Your task to perform on an android device: Open the stopwatch Image 0: 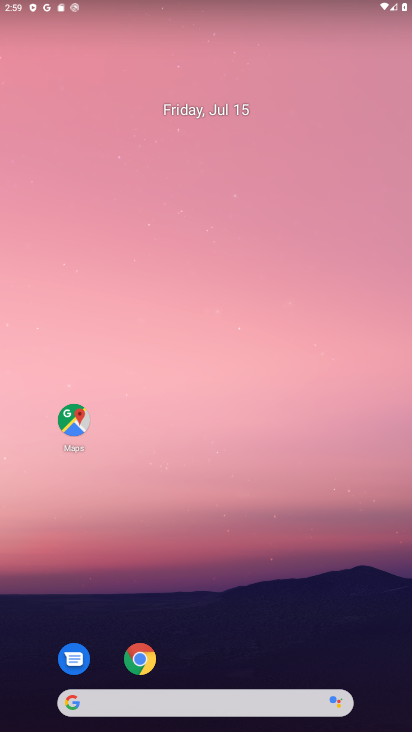
Step 0: drag from (211, 589) to (148, 132)
Your task to perform on an android device: Open the stopwatch Image 1: 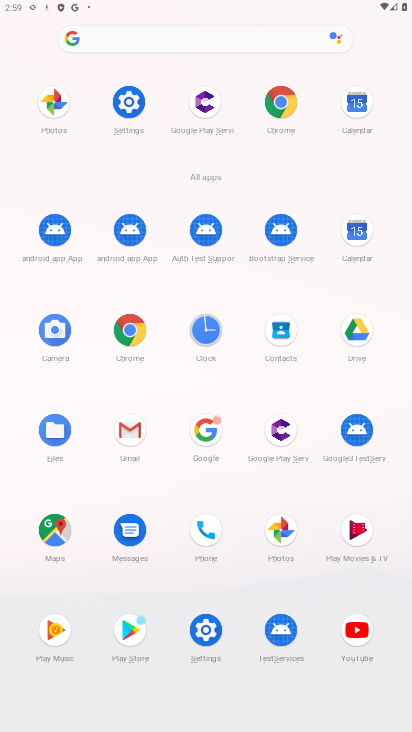
Step 1: click (203, 329)
Your task to perform on an android device: Open the stopwatch Image 2: 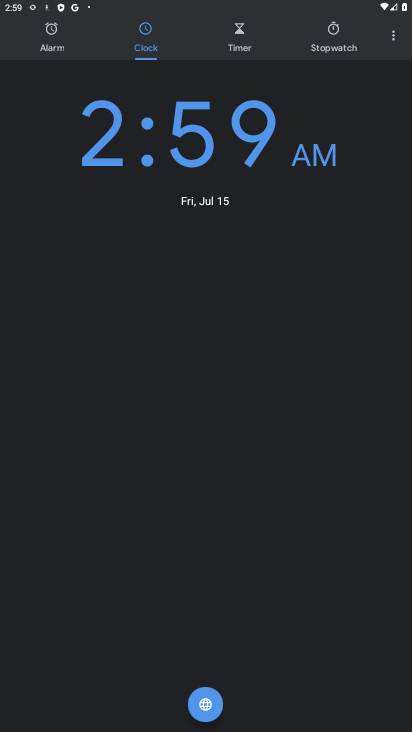
Step 2: click (336, 33)
Your task to perform on an android device: Open the stopwatch Image 3: 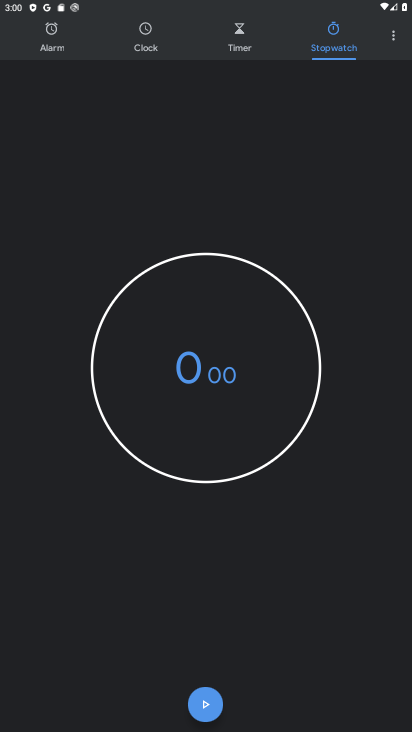
Step 3: task complete